Your task to perform on an android device: Where can I buy a nice beach umbrella? Image 0: 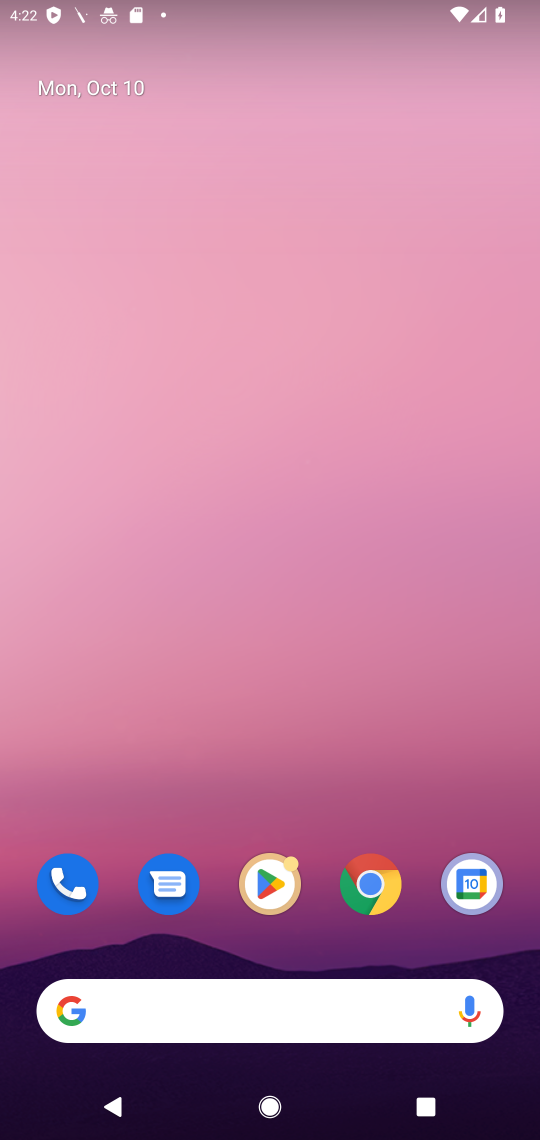
Step 0: click (303, 1010)
Your task to perform on an android device: Where can I buy a nice beach umbrella? Image 1: 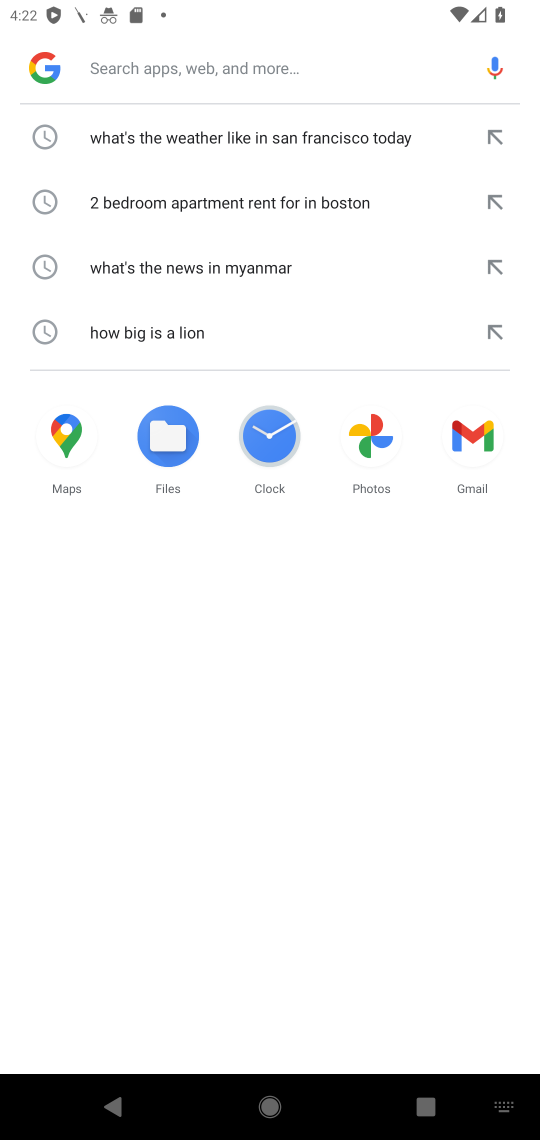
Step 1: type "Where can I buy a nice beach umbrella?"
Your task to perform on an android device: Where can I buy a nice beach umbrella? Image 2: 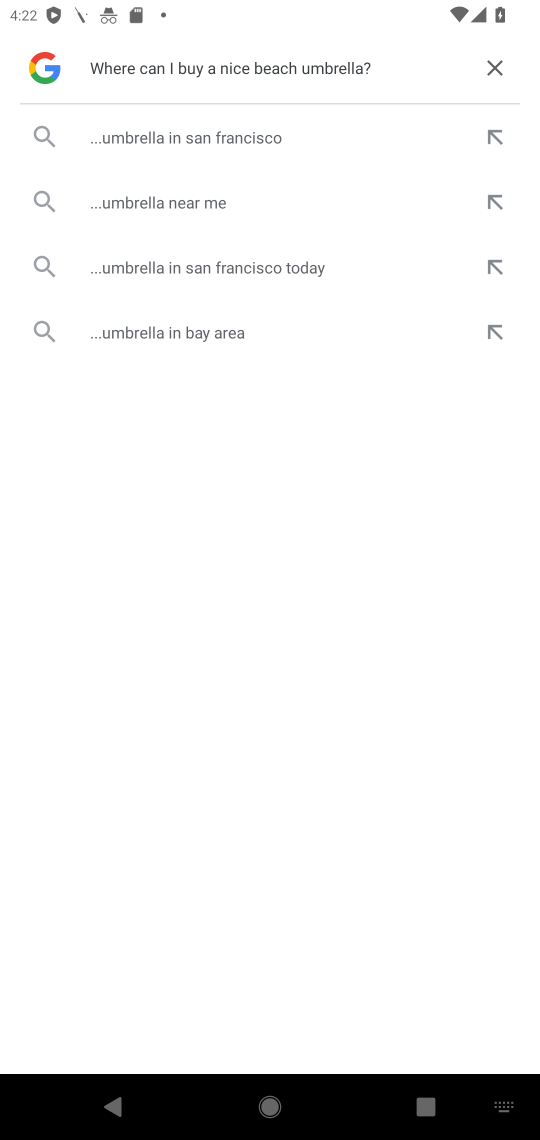
Step 2: click (150, 330)
Your task to perform on an android device: Where can I buy a nice beach umbrella? Image 3: 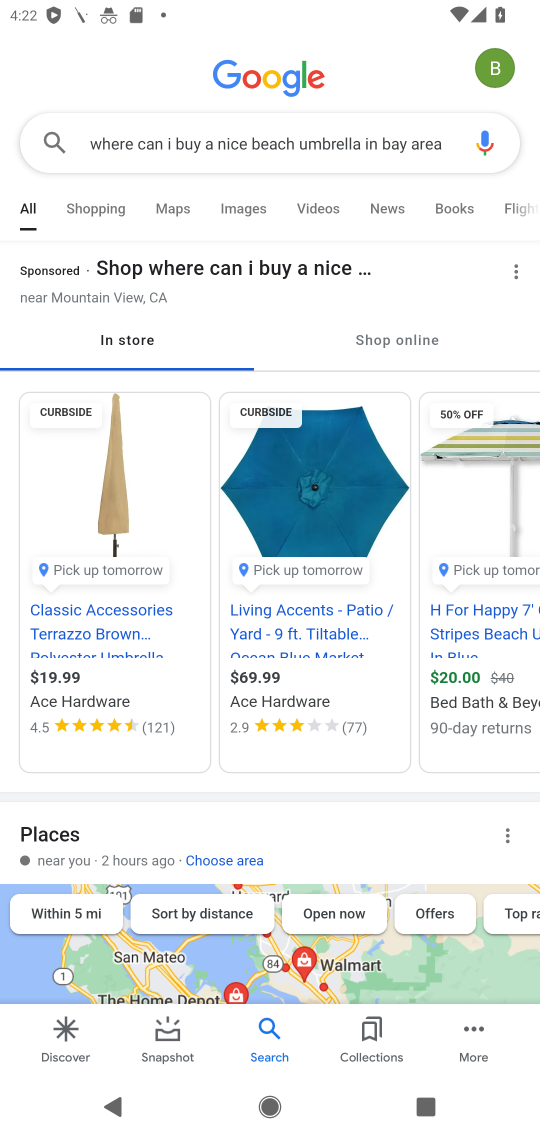
Step 3: task complete